Your task to perform on an android device: Show me the alarms in the clock app Image 0: 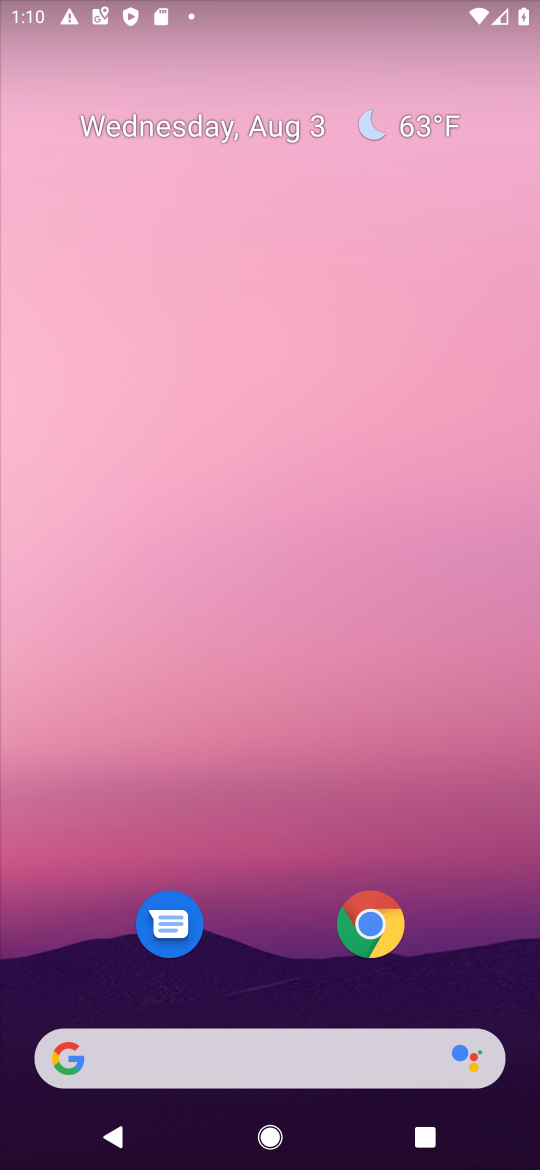
Step 0: drag from (288, 815) to (372, 196)
Your task to perform on an android device: Show me the alarms in the clock app Image 1: 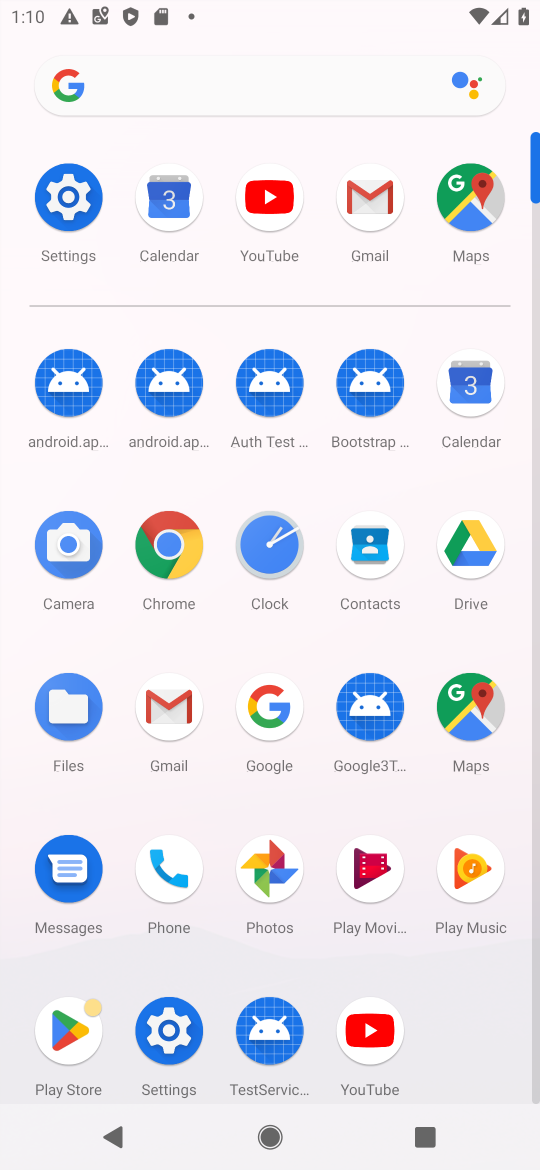
Step 1: click (267, 545)
Your task to perform on an android device: Show me the alarms in the clock app Image 2: 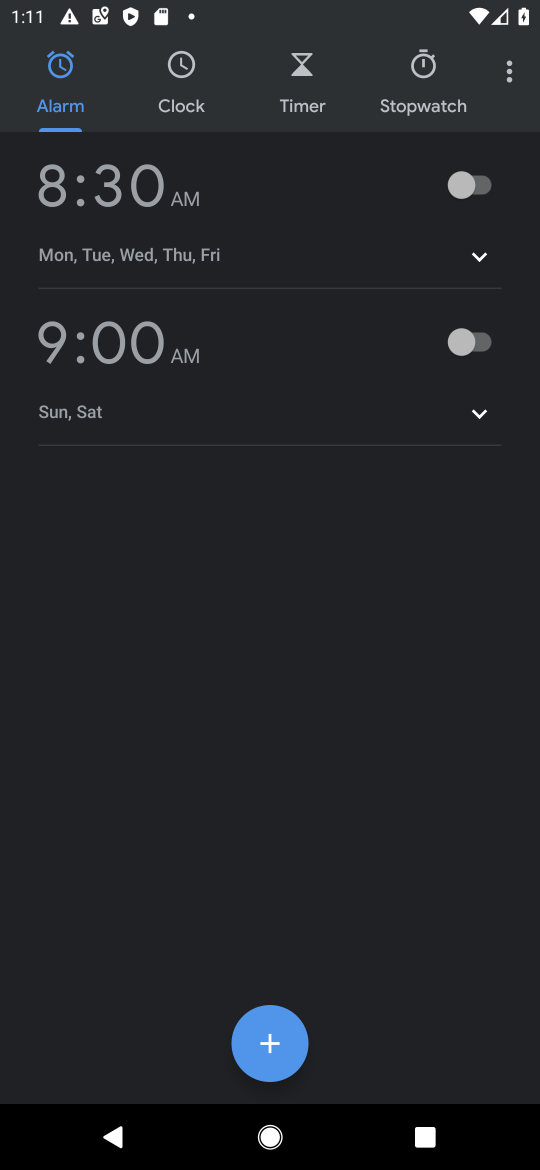
Step 2: task complete